Your task to perform on an android device: uninstall "Move to iOS" Image 0: 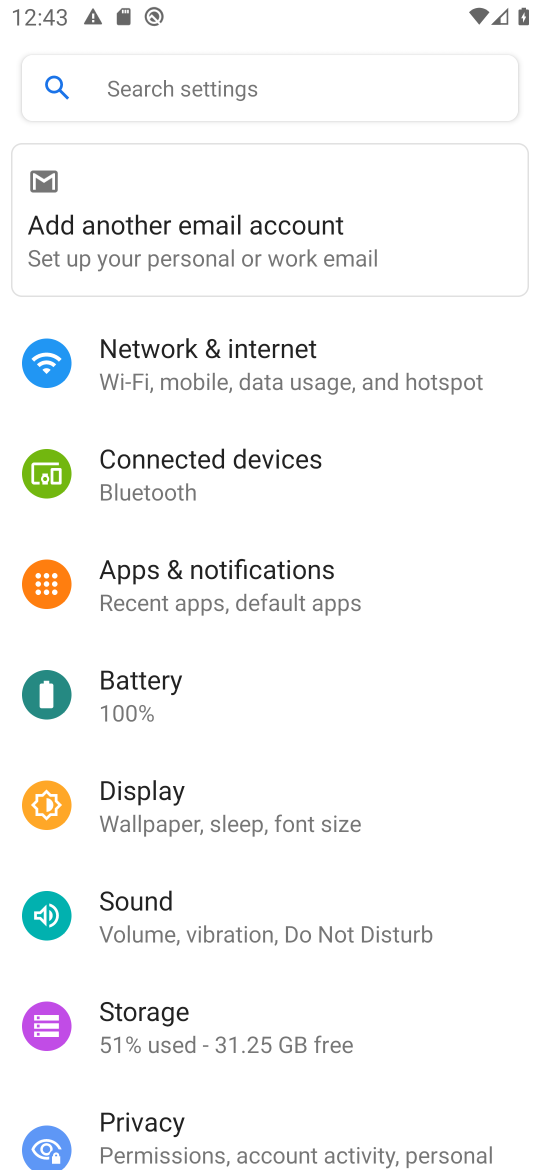
Step 0: press home button
Your task to perform on an android device: uninstall "Move to iOS" Image 1: 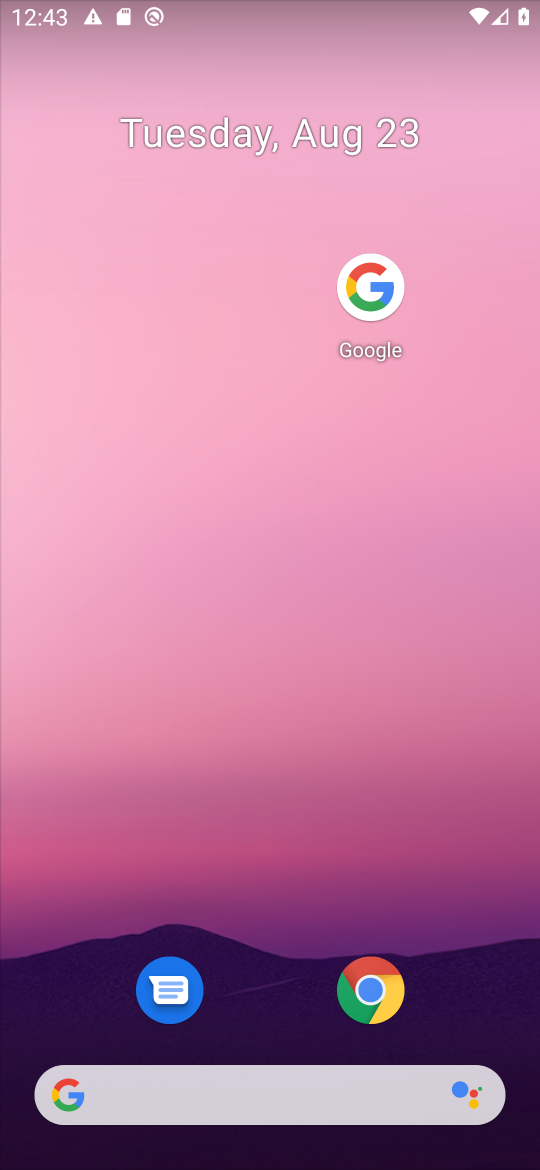
Step 1: drag from (272, 1018) to (266, 468)
Your task to perform on an android device: uninstall "Move to iOS" Image 2: 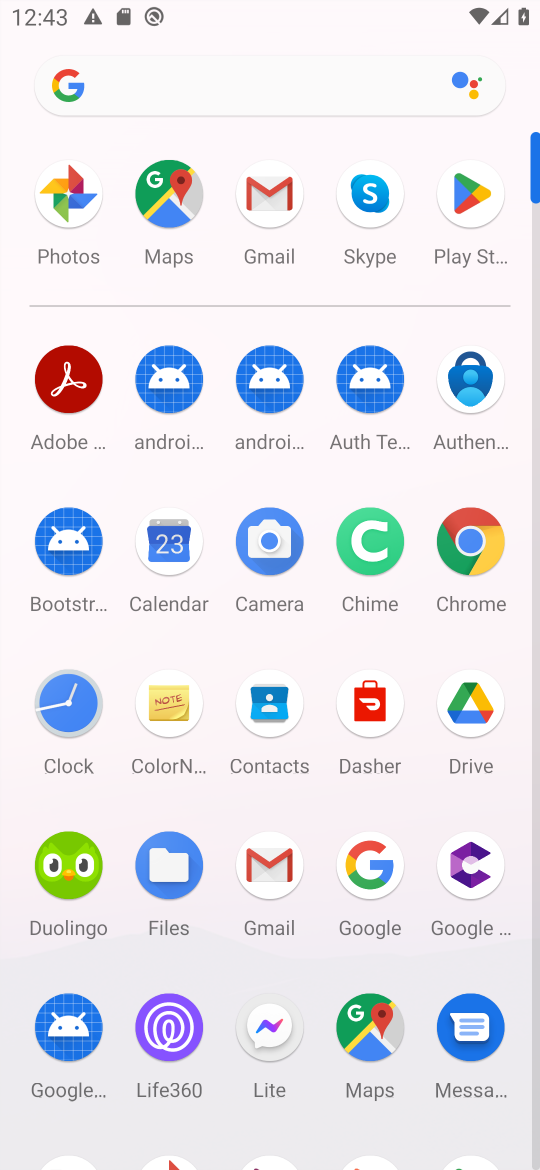
Step 2: click (466, 198)
Your task to perform on an android device: uninstall "Move to iOS" Image 3: 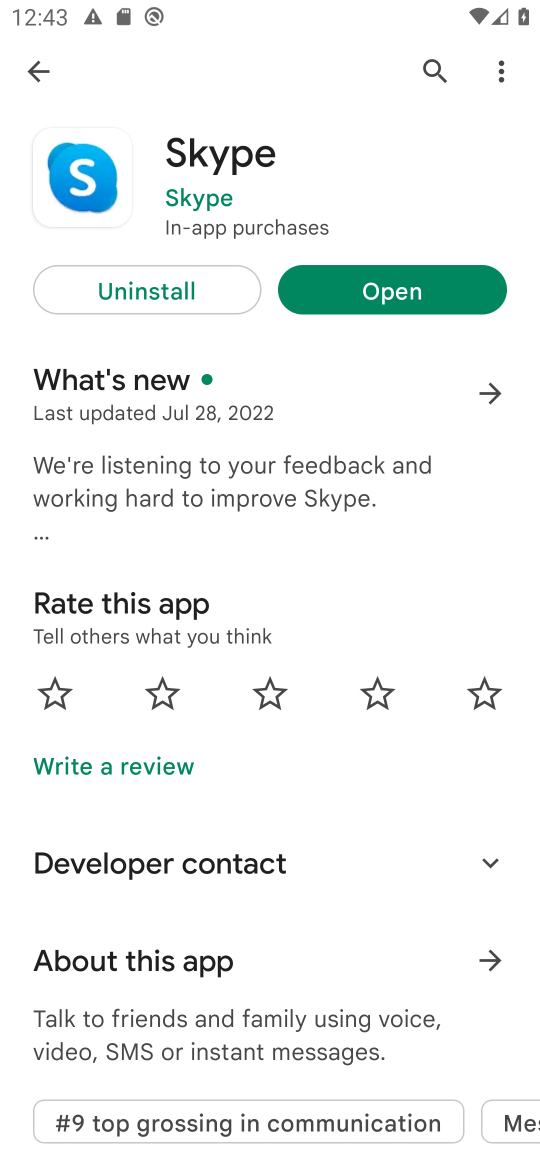
Step 3: click (30, 57)
Your task to perform on an android device: uninstall "Move to iOS" Image 4: 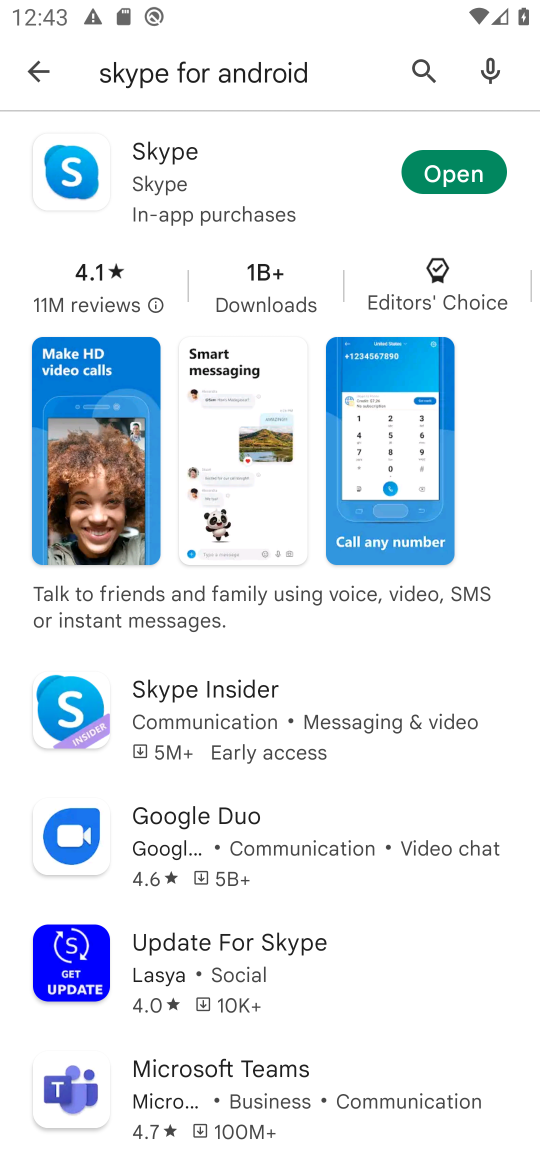
Step 4: click (46, 54)
Your task to perform on an android device: uninstall "Move to iOS" Image 5: 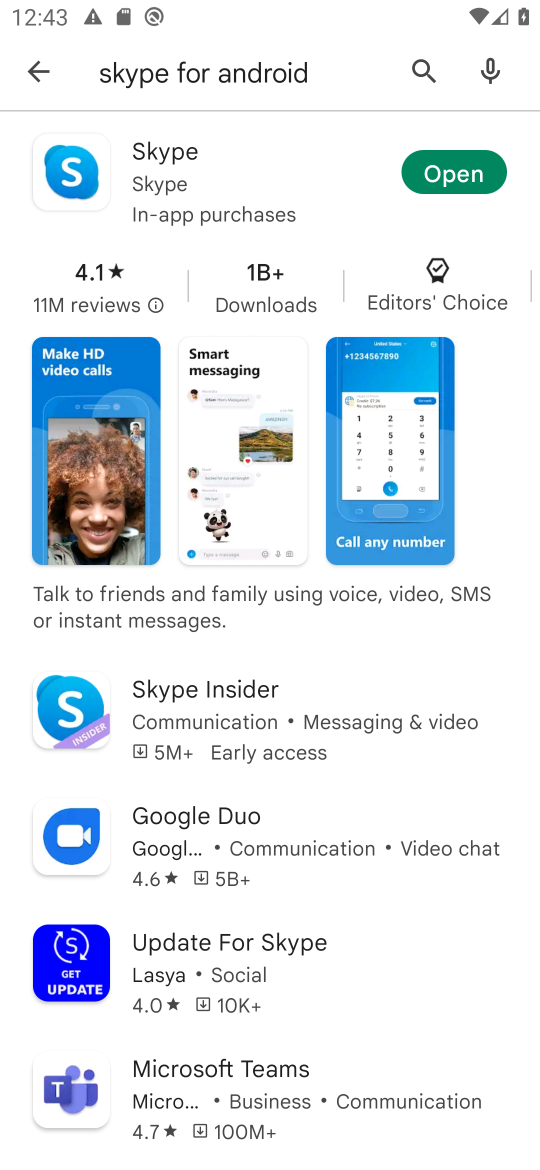
Step 5: click (28, 69)
Your task to perform on an android device: uninstall "Move to iOS" Image 6: 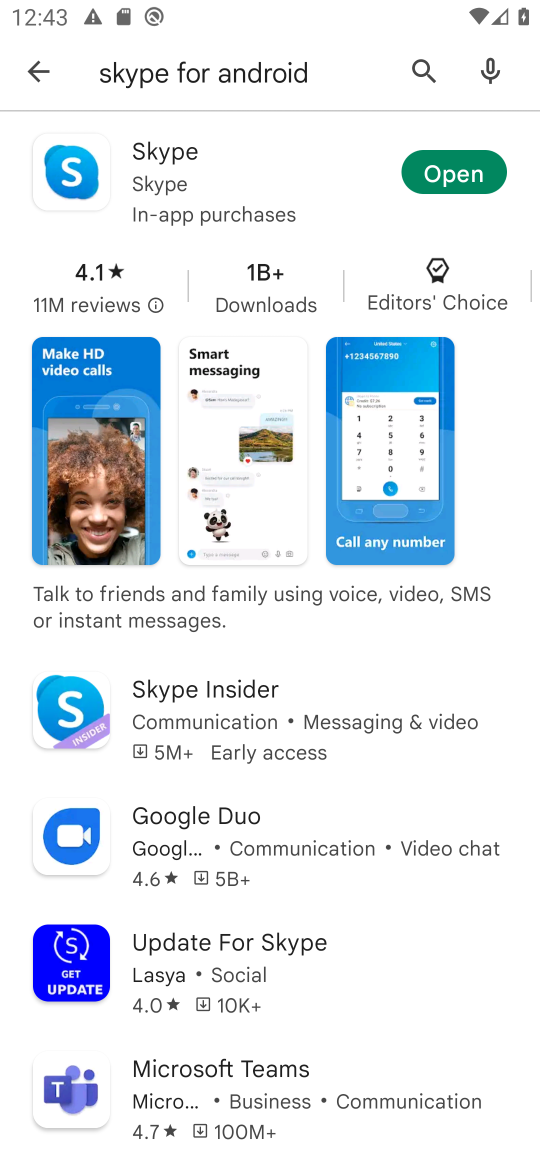
Step 6: click (423, 61)
Your task to perform on an android device: uninstall "Move to iOS" Image 7: 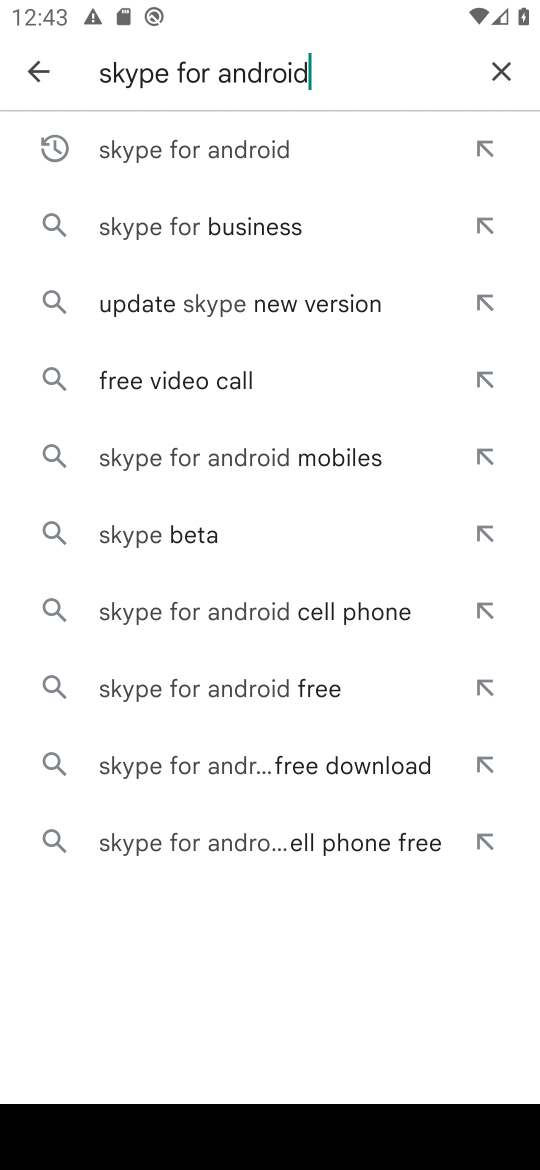
Step 7: click (36, 69)
Your task to perform on an android device: uninstall "Move to iOS" Image 8: 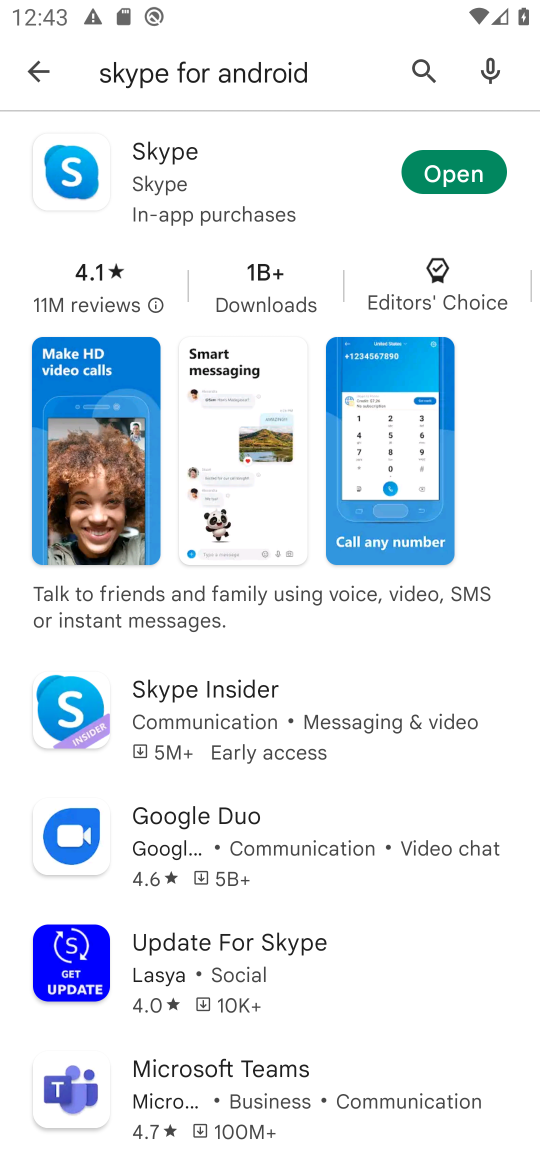
Step 8: click (431, 59)
Your task to perform on an android device: uninstall "Move to iOS" Image 9: 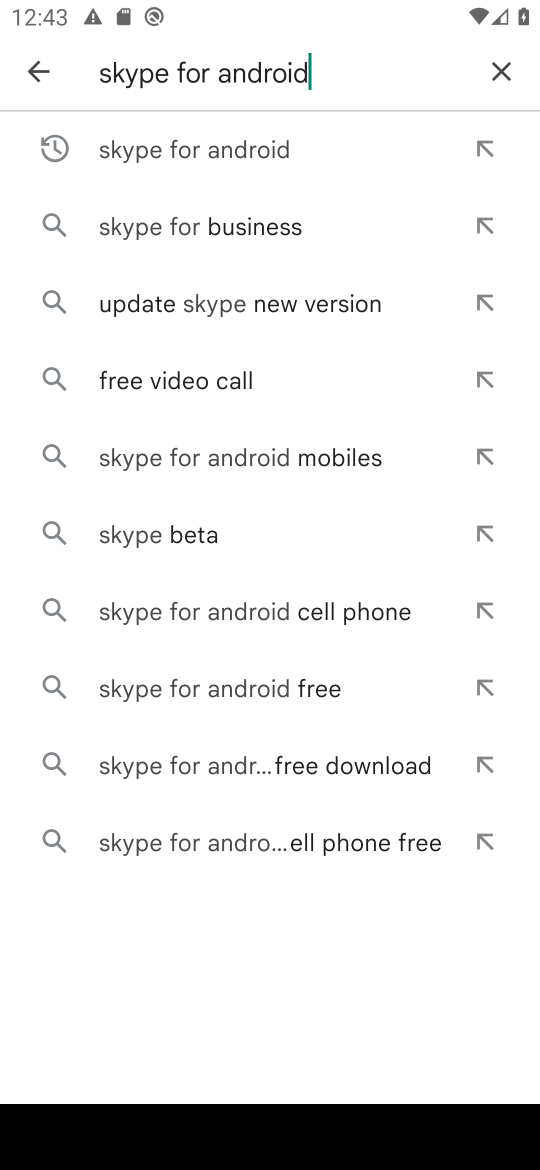
Step 9: click (505, 63)
Your task to perform on an android device: uninstall "Move to iOS" Image 10: 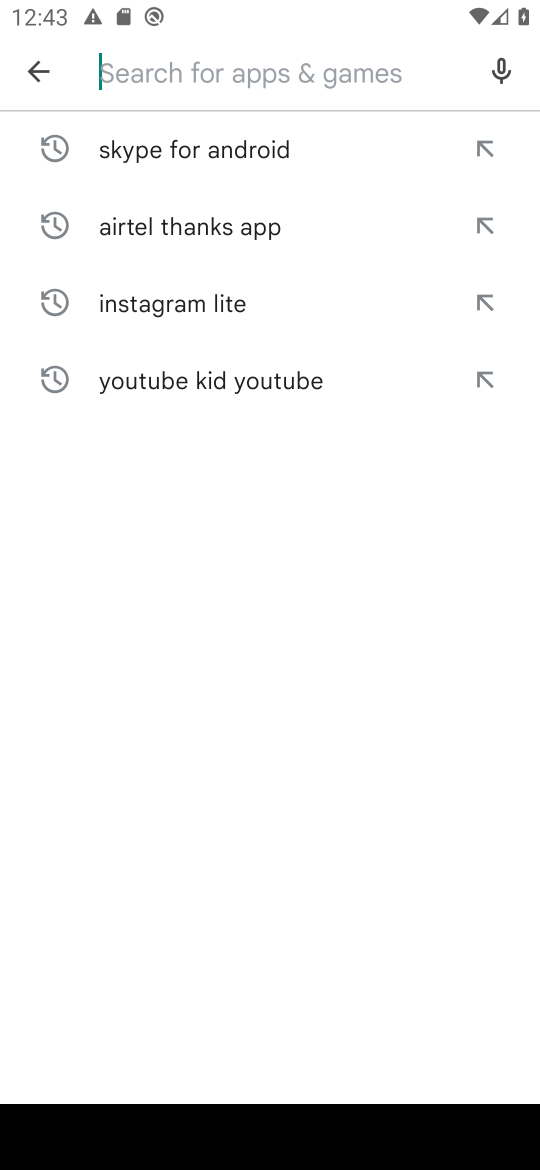
Step 10: click (289, 71)
Your task to perform on an android device: uninstall "Move to iOS" Image 11: 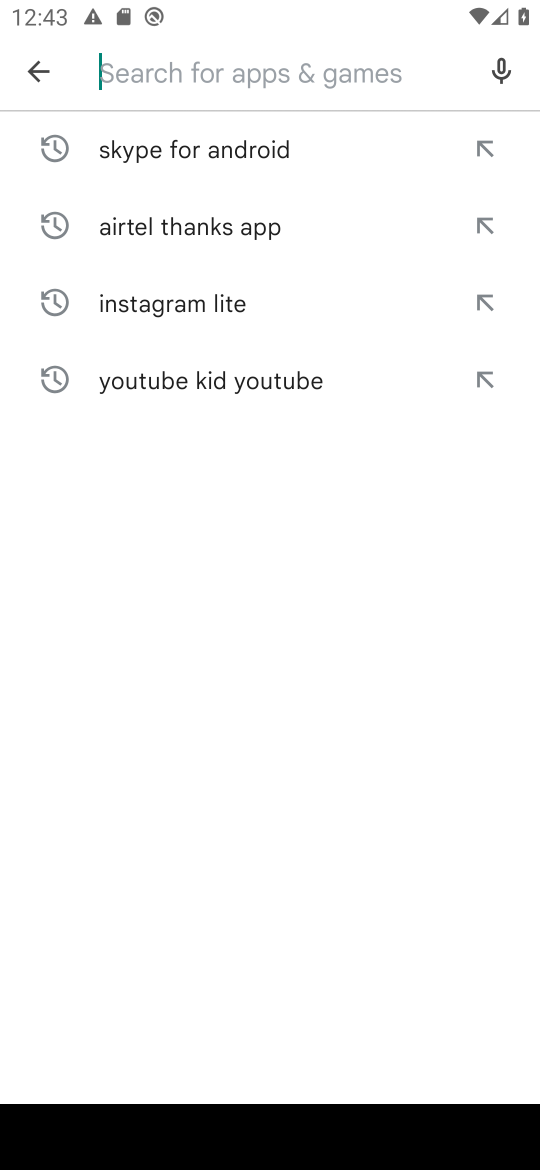
Step 11: type "Move to iOS "
Your task to perform on an android device: uninstall "Move to iOS" Image 12: 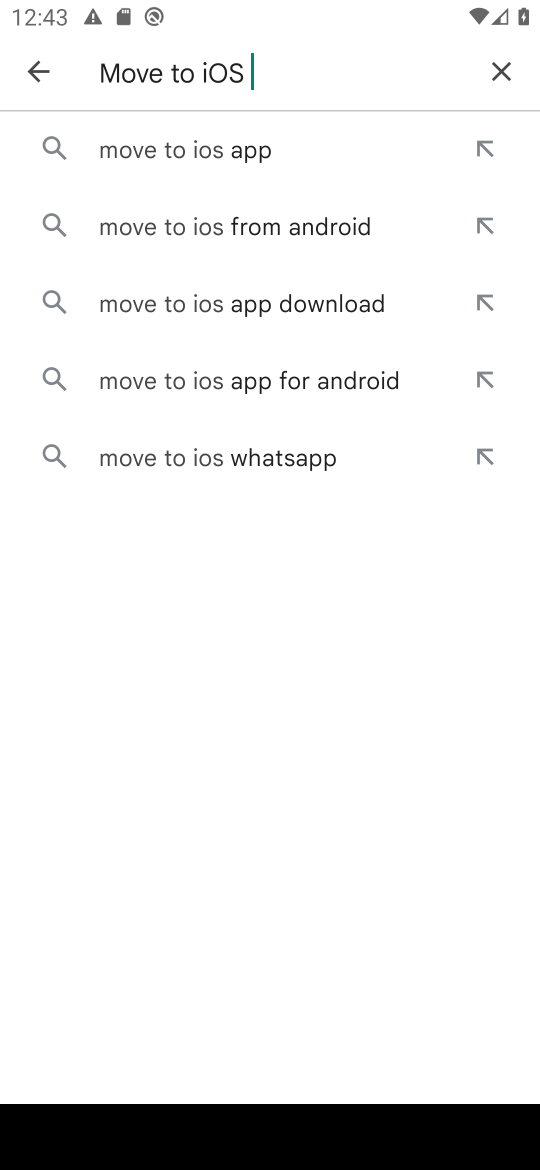
Step 12: click (161, 131)
Your task to perform on an android device: uninstall "Move to iOS" Image 13: 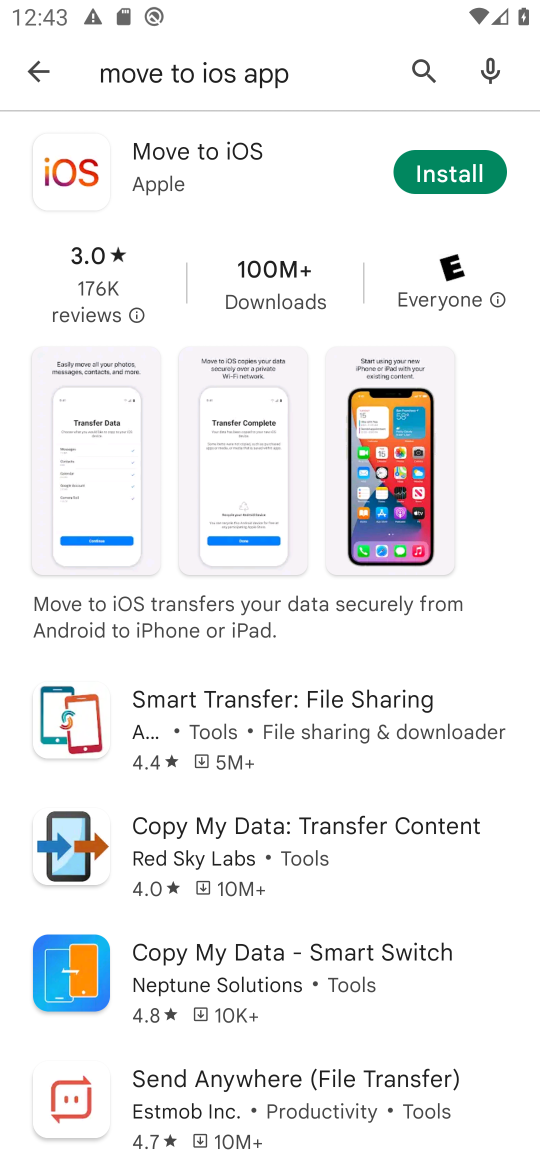
Step 13: click (157, 149)
Your task to perform on an android device: uninstall "Move to iOS" Image 14: 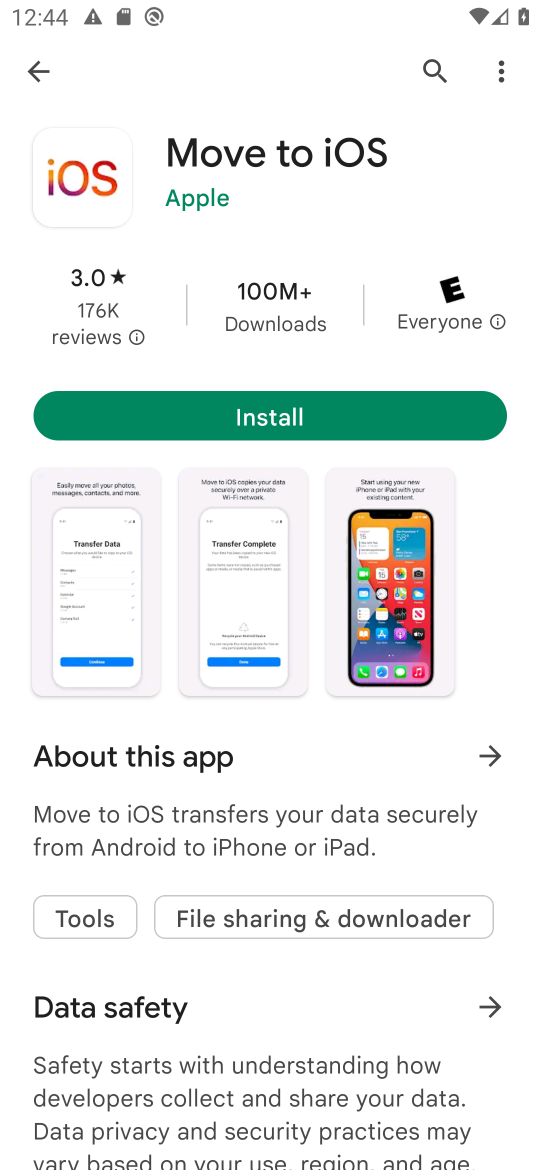
Step 14: task complete